Your task to perform on an android device: install app "Chime – Mobile Banking" Image 0: 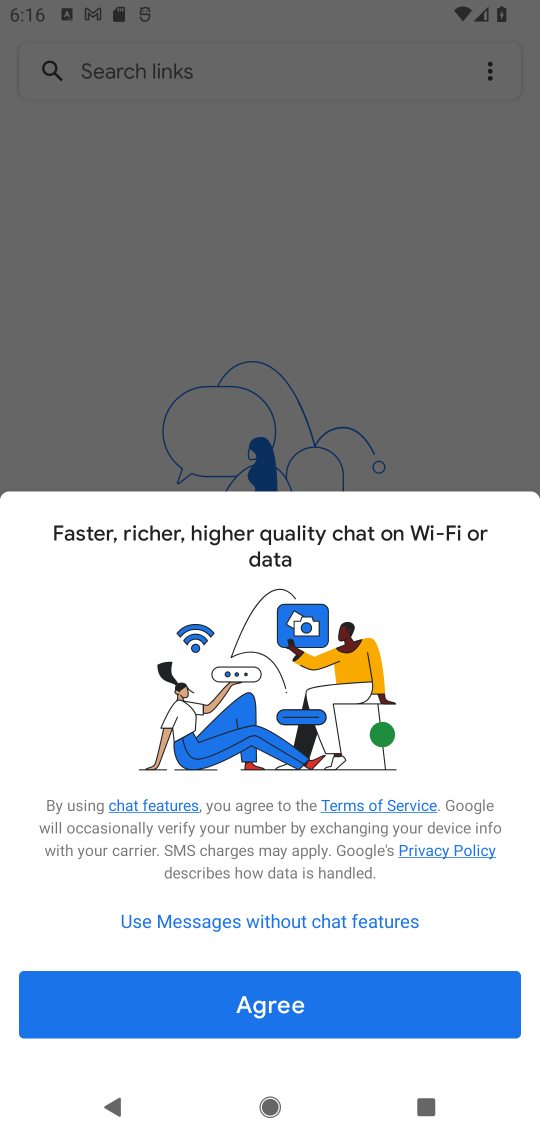
Step 0: press home button
Your task to perform on an android device: install app "Chime – Mobile Banking" Image 1: 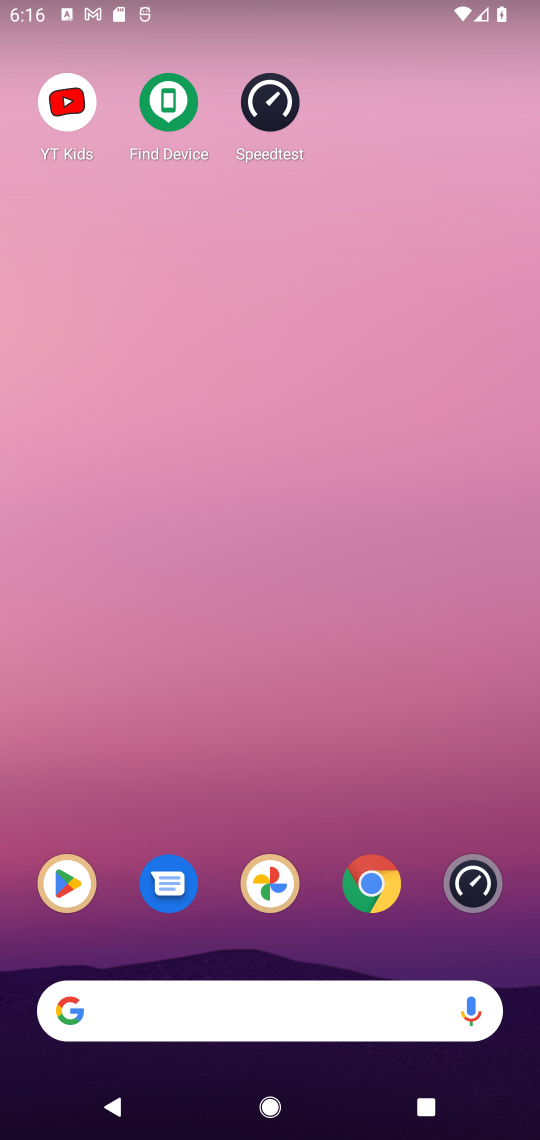
Step 1: click (71, 870)
Your task to perform on an android device: install app "Chime – Mobile Banking" Image 2: 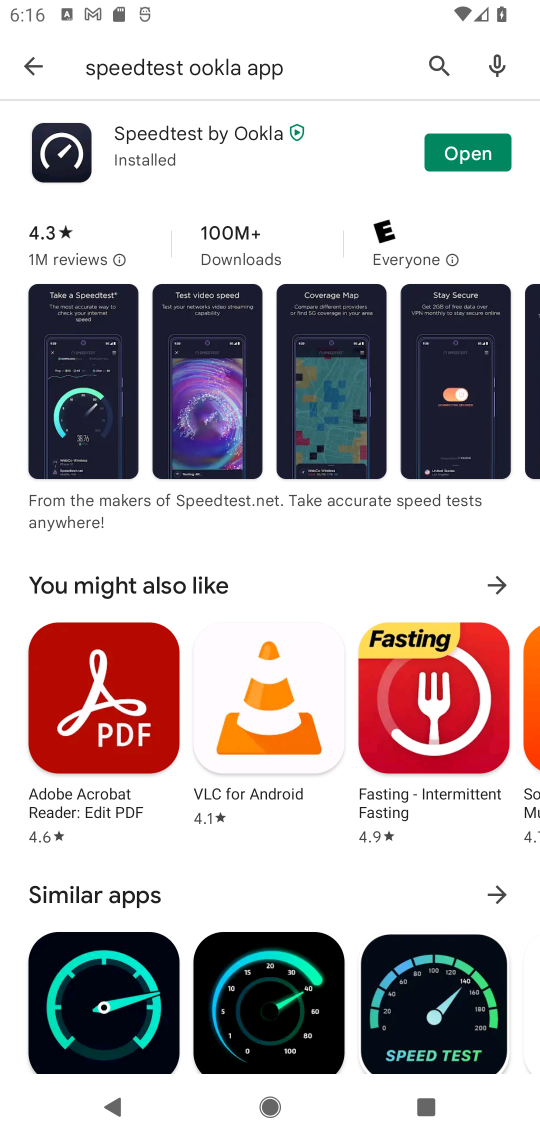
Step 2: click (442, 66)
Your task to perform on an android device: install app "Chime – Mobile Banking" Image 3: 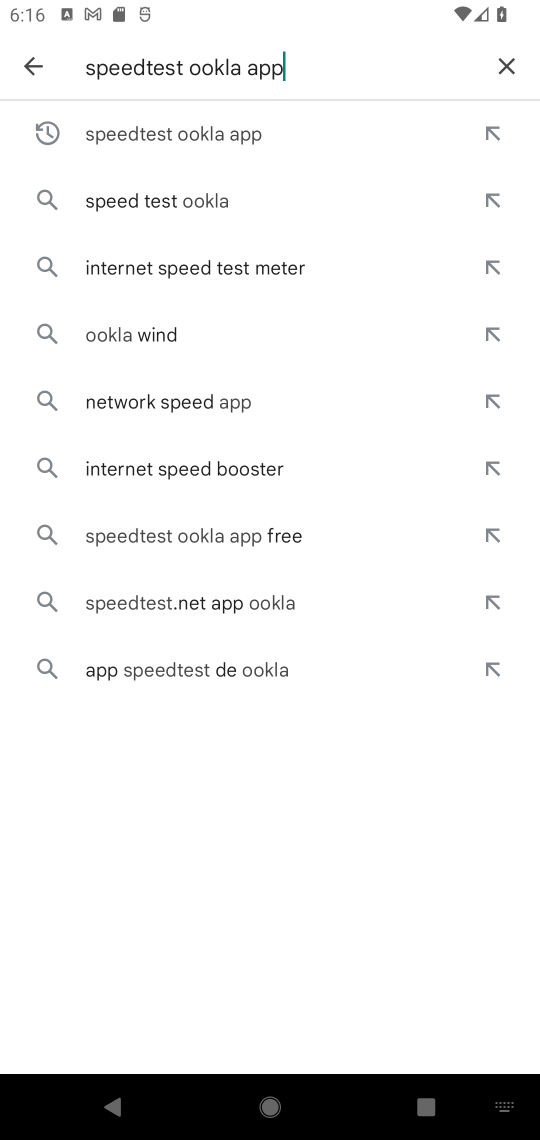
Step 3: click (516, 57)
Your task to perform on an android device: install app "Chime – Mobile Banking" Image 4: 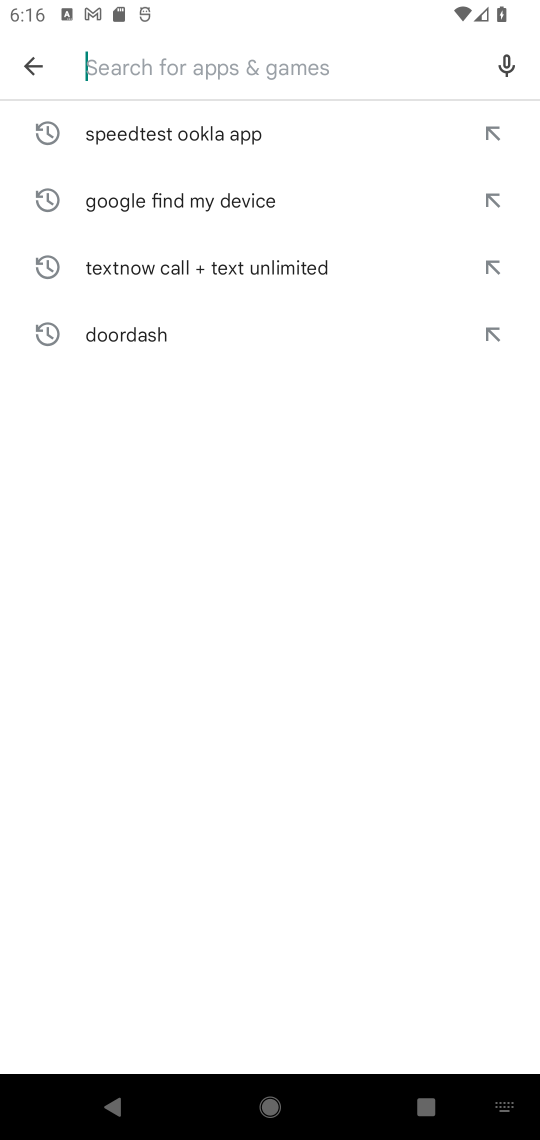
Step 4: click (268, 69)
Your task to perform on an android device: install app "Chime – Mobile Banking" Image 5: 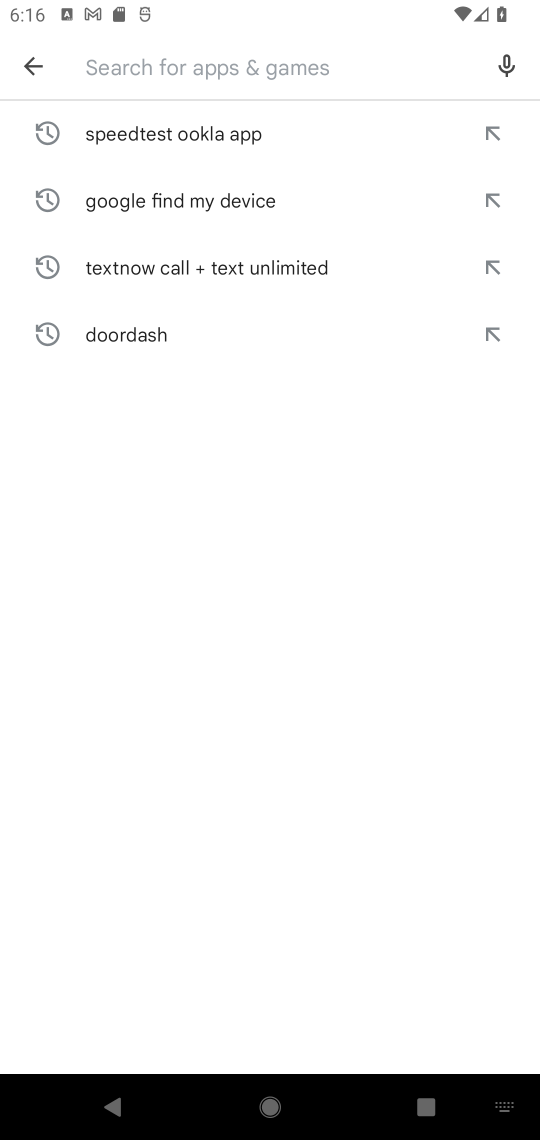
Step 5: type "chime"
Your task to perform on an android device: install app "Chime – Mobile Banking" Image 6: 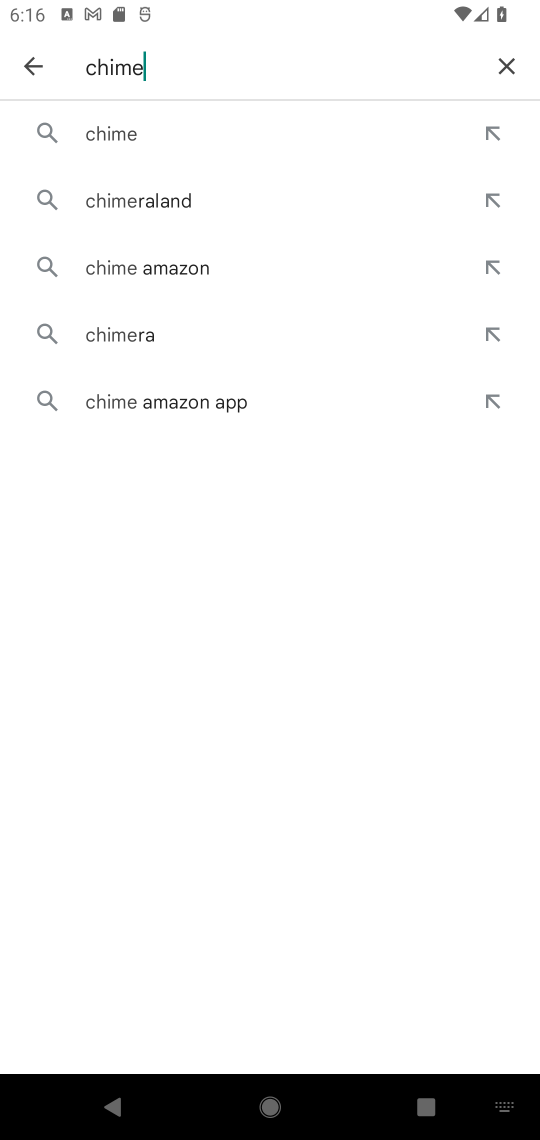
Step 6: click (124, 123)
Your task to perform on an android device: install app "Chime – Mobile Banking" Image 7: 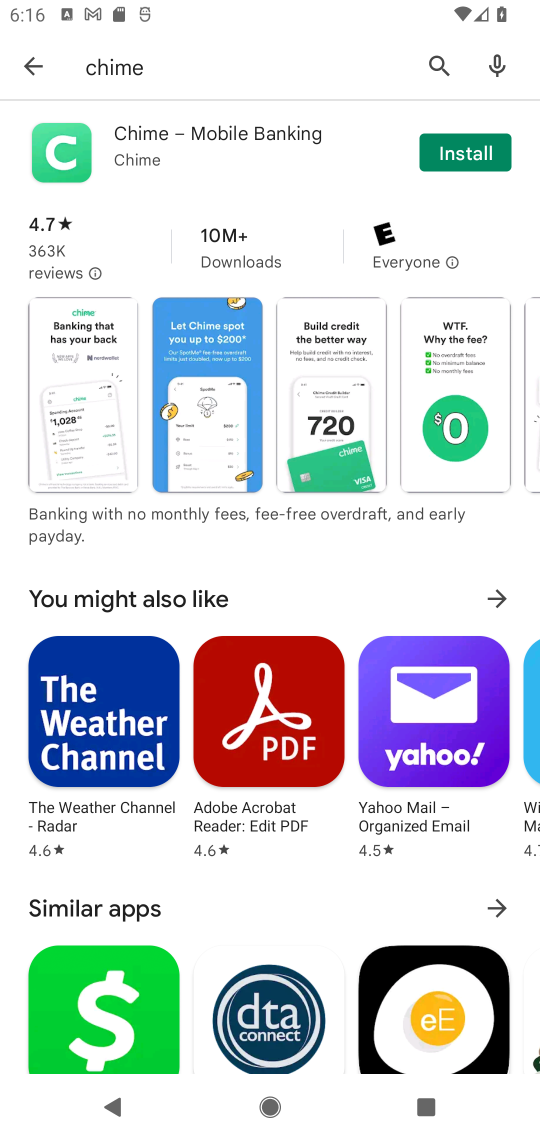
Step 7: click (452, 147)
Your task to perform on an android device: install app "Chime – Mobile Banking" Image 8: 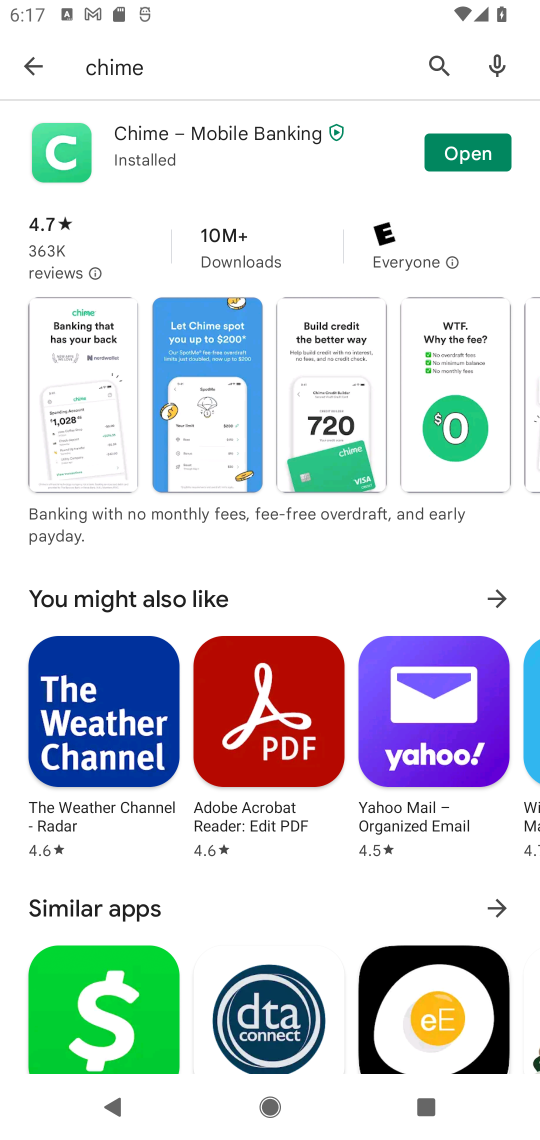
Step 8: click (452, 152)
Your task to perform on an android device: install app "Chime – Mobile Banking" Image 9: 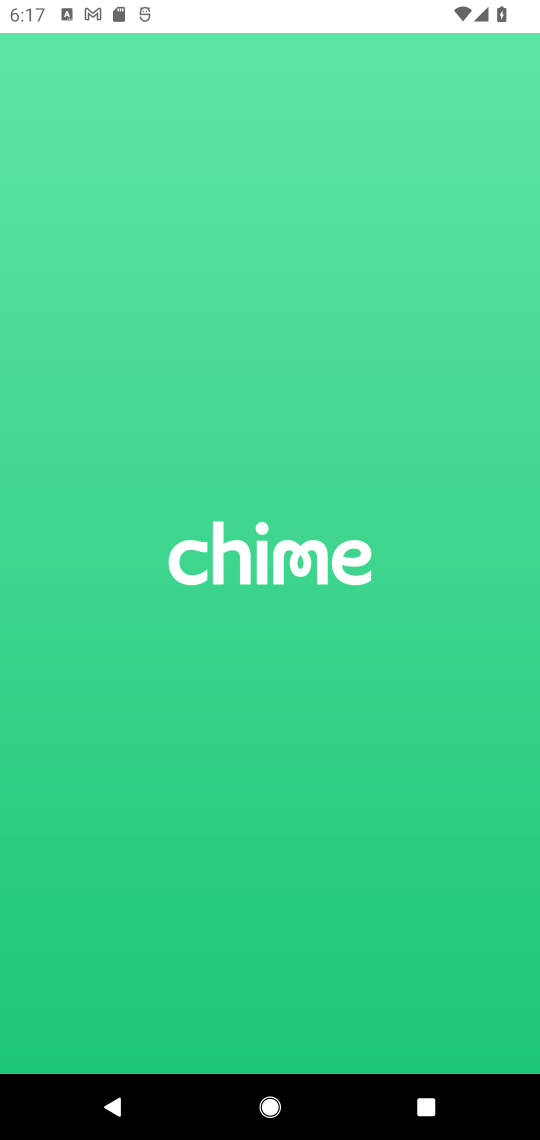
Step 9: task complete